Your task to perform on an android device: turn on the 24-hour format for clock Image 0: 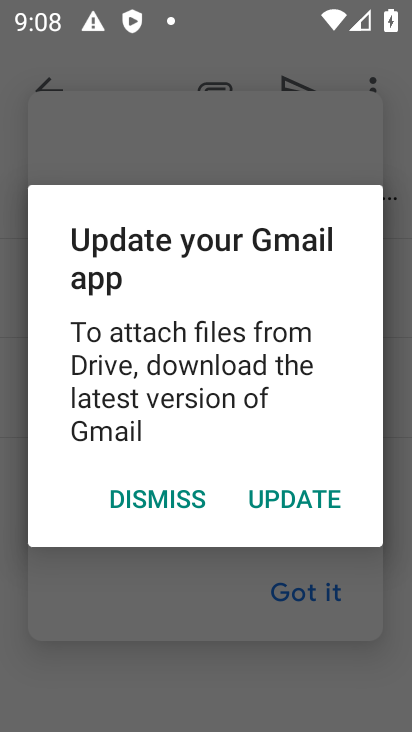
Step 0: press home button
Your task to perform on an android device: turn on the 24-hour format for clock Image 1: 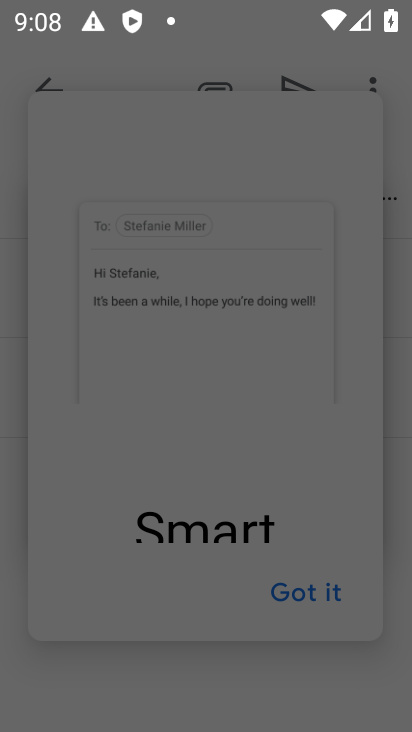
Step 1: drag from (242, 488) to (328, 129)
Your task to perform on an android device: turn on the 24-hour format for clock Image 2: 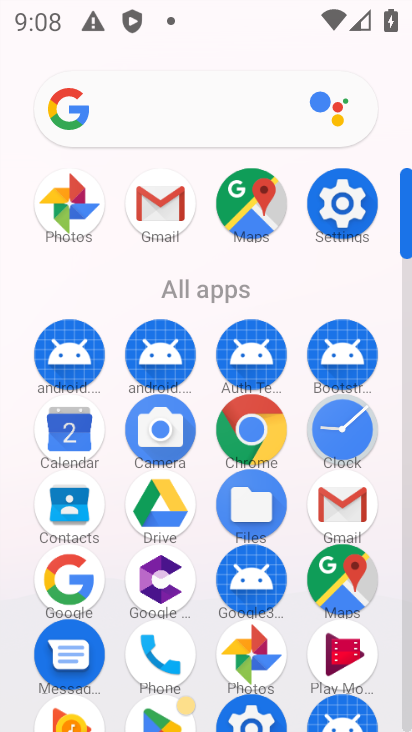
Step 2: drag from (203, 611) to (244, 245)
Your task to perform on an android device: turn on the 24-hour format for clock Image 3: 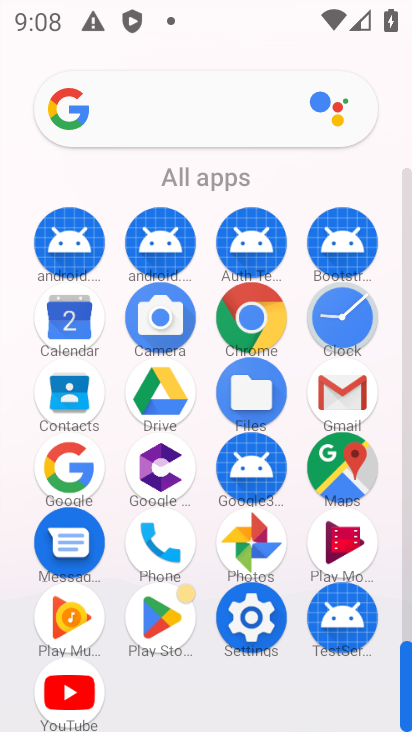
Step 3: click (334, 326)
Your task to perform on an android device: turn on the 24-hour format for clock Image 4: 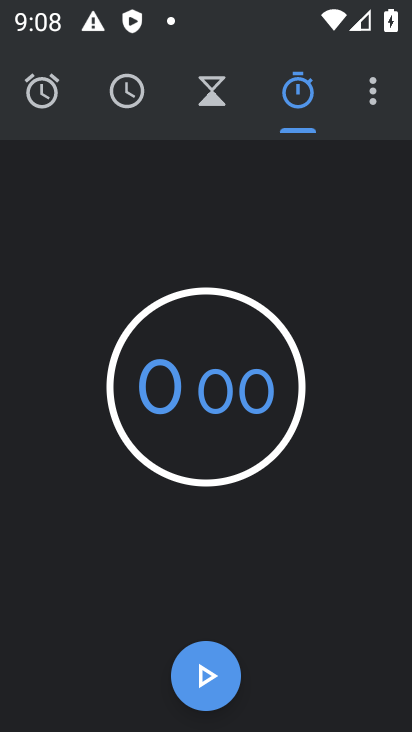
Step 4: click (377, 74)
Your task to perform on an android device: turn on the 24-hour format for clock Image 5: 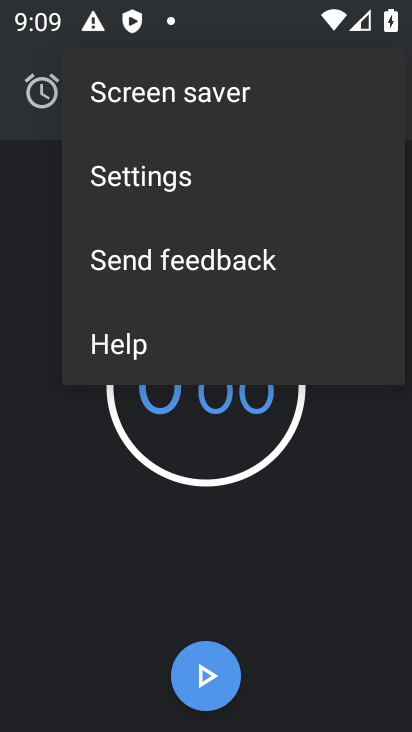
Step 5: click (186, 179)
Your task to perform on an android device: turn on the 24-hour format for clock Image 6: 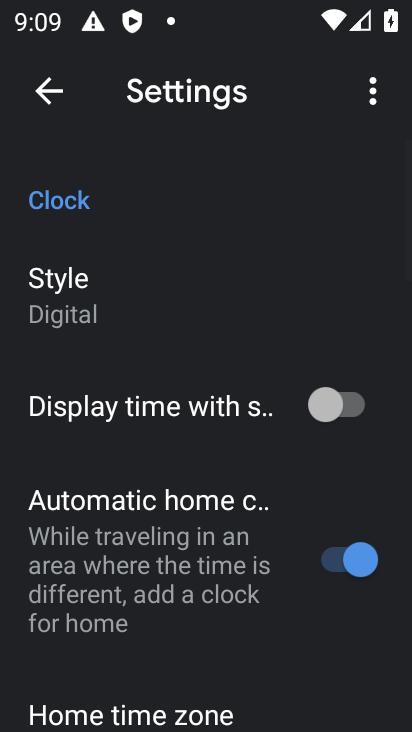
Step 6: drag from (182, 573) to (339, 64)
Your task to perform on an android device: turn on the 24-hour format for clock Image 7: 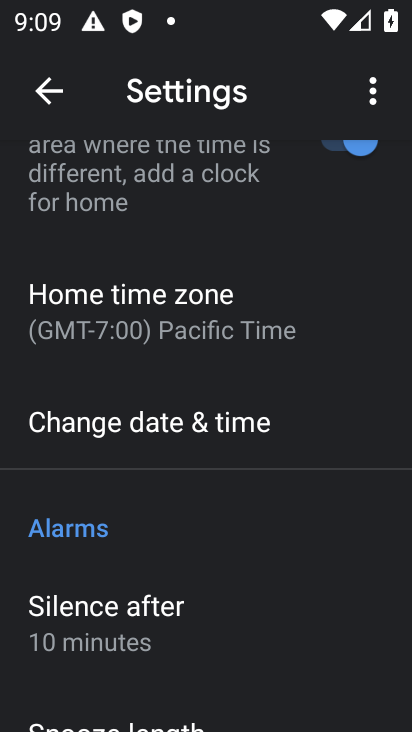
Step 7: click (151, 409)
Your task to perform on an android device: turn on the 24-hour format for clock Image 8: 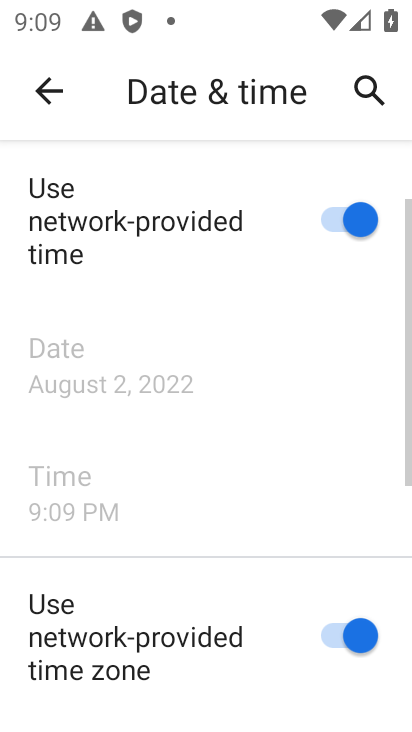
Step 8: drag from (180, 545) to (231, 340)
Your task to perform on an android device: turn on the 24-hour format for clock Image 9: 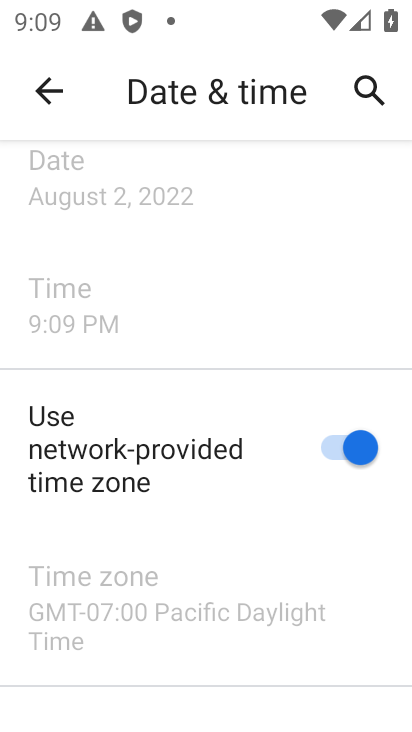
Step 9: drag from (238, 478) to (274, 233)
Your task to perform on an android device: turn on the 24-hour format for clock Image 10: 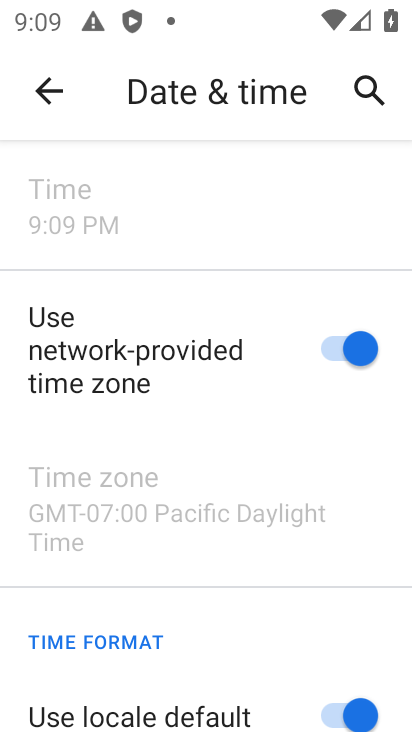
Step 10: drag from (222, 640) to (264, 338)
Your task to perform on an android device: turn on the 24-hour format for clock Image 11: 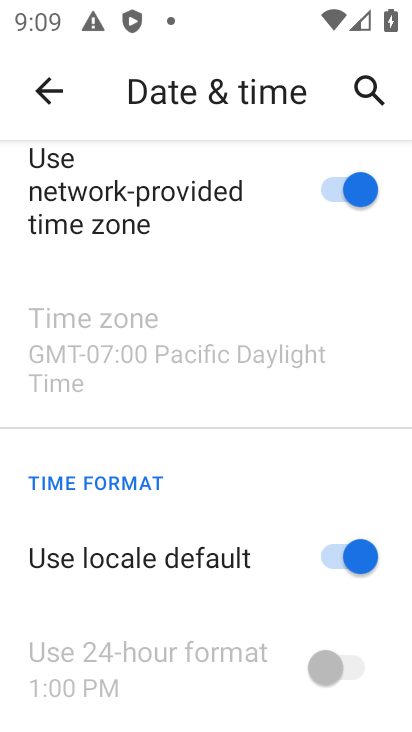
Step 11: drag from (243, 586) to (249, 333)
Your task to perform on an android device: turn on the 24-hour format for clock Image 12: 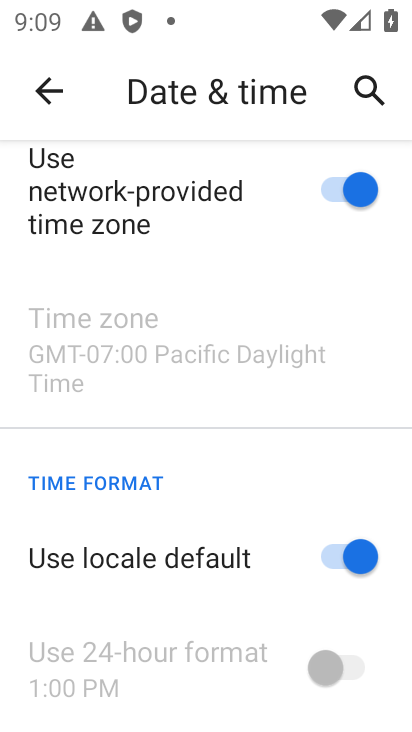
Step 12: click (343, 555)
Your task to perform on an android device: turn on the 24-hour format for clock Image 13: 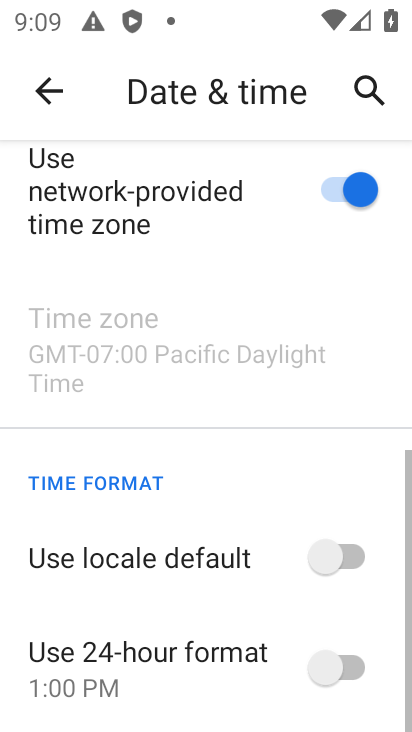
Step 13: click (334, 680)
Your task to perform on an android device: turn on the 24-hour format for clock Image 14: 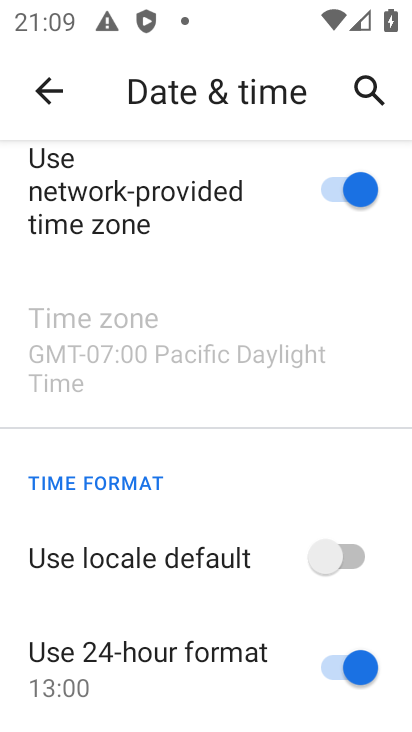
Step 14: task complete